Your task to perform on an android device: Show me the alarms in the clock app Image 0: 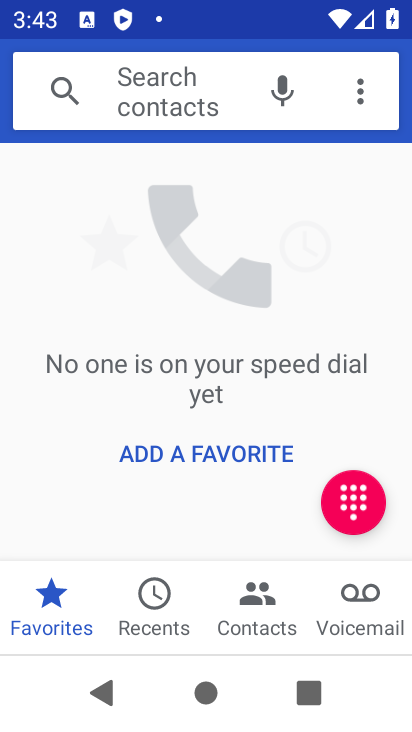
Step 0: task complete